Your task to perform on an android device: move an email to a new category in the gmail app Image 0: 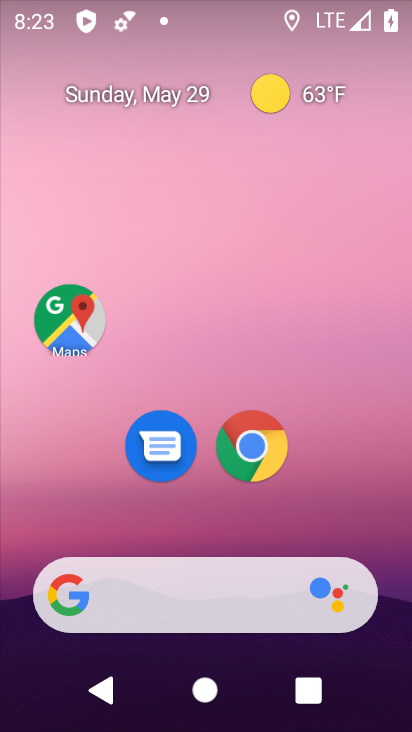
Step 0: drag from (228, 533) to (209, 181)
Your task to perform on an android device: move an email to a new category in the gmail app Image 1: 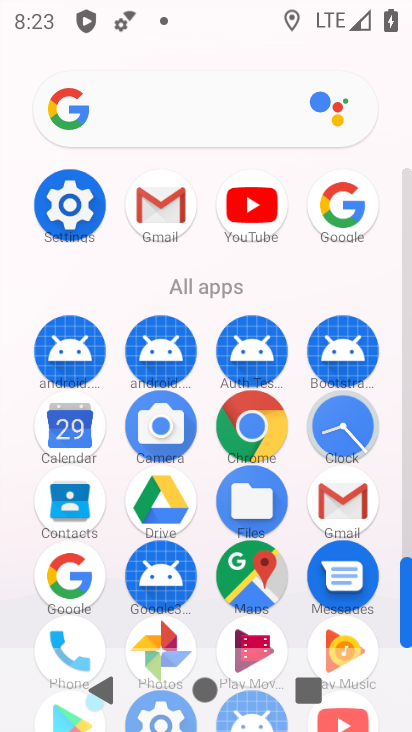
Step 1: click (176, 195)
Your task to perform on an android device: move an email to a new category in the gmail app Image 2: 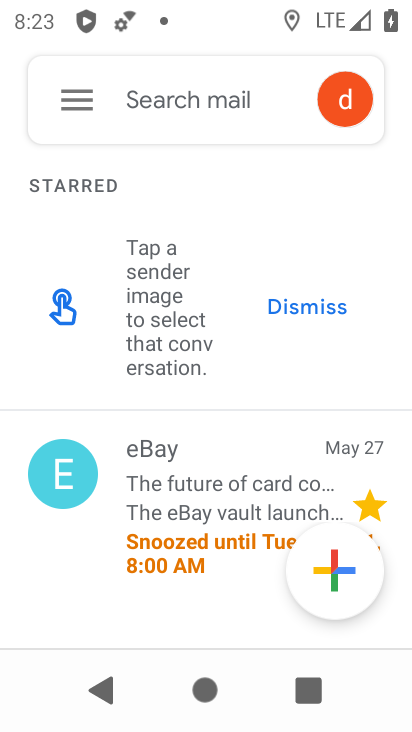
Step 2: click (70, 80)
Your task to perform on an android device: move an email to a new category in the gmail app Image 3: 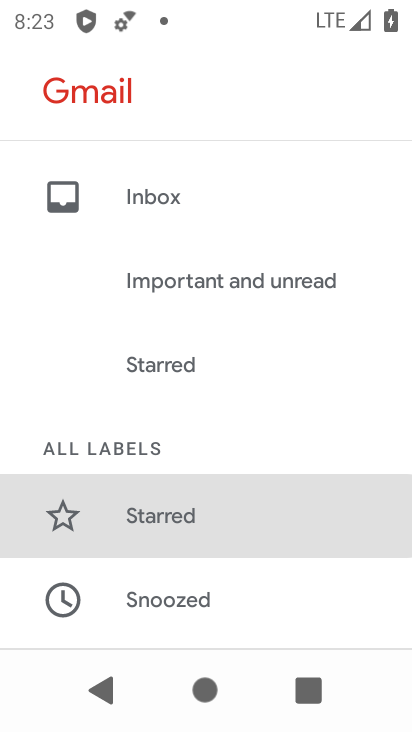
Step 3: drag from (236, 494) to (237, 287)
Your task to perform on an android device: move an email to a new category in the gmail app Image 4: 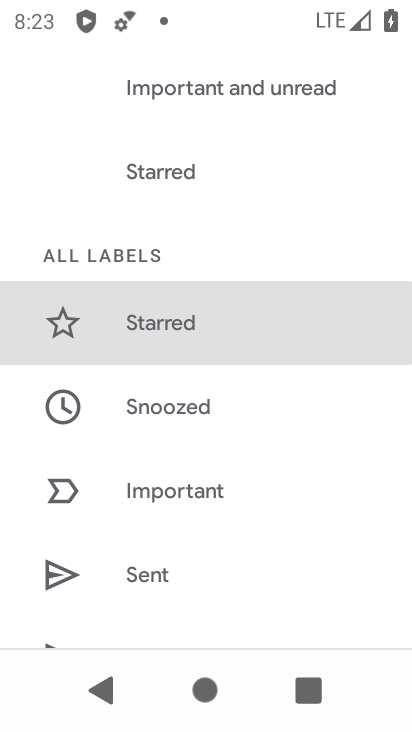
Step 4: drag from (237, 484) to (283, 285)
Your task to perform on an android device: move an email to a new category in the gmail app Image 5: 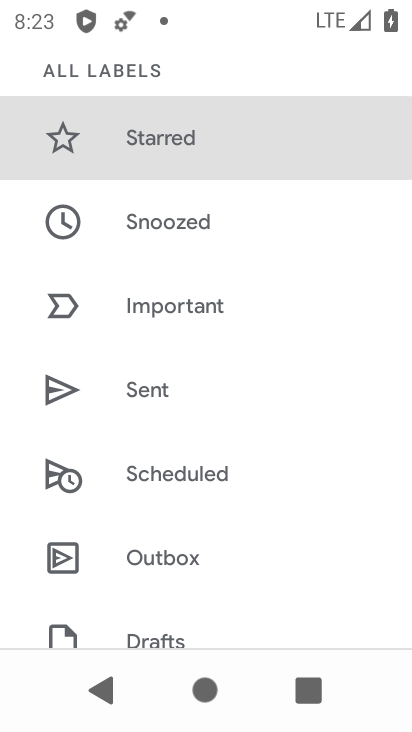
Step 5: drag from (239, 541) to (207, 256)
Your task to perform on an android device: move an email to a new category in the gmail app Image 6: 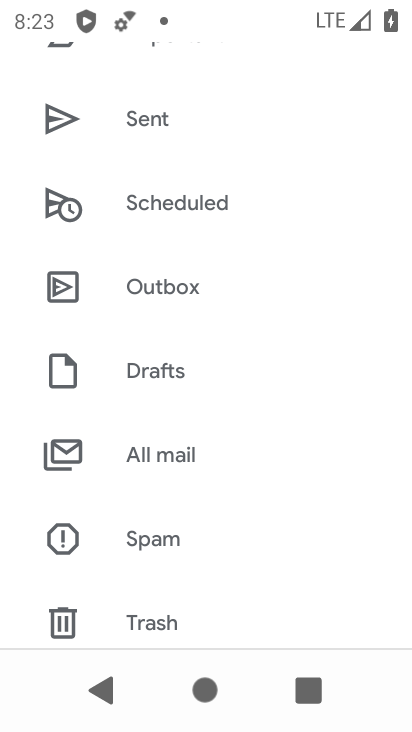
Step 6: drag from (208, 568) to (209, 374)
Your task to perform on an android device: move an email to a new category in the gmail app Image 7: 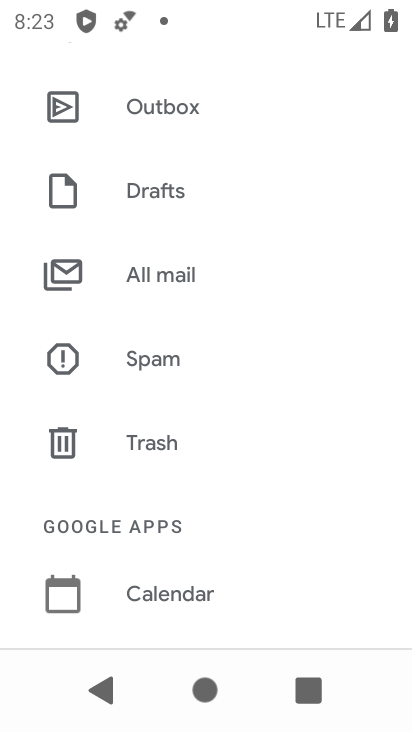
Step 7: drag from (181, 565) to (183, 376)
Your task to perform on an android device: move an email to a new category in the gmail app Image 8: 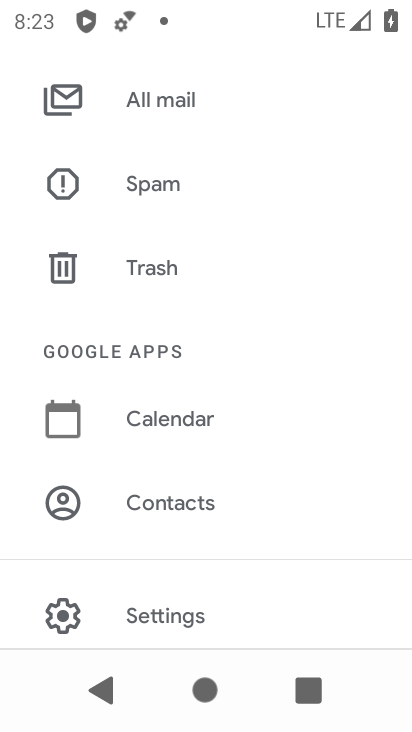
Step 8: click (187, 116)
Your task to perform on an android device: move an email to a new category in the gmail app Image 9: 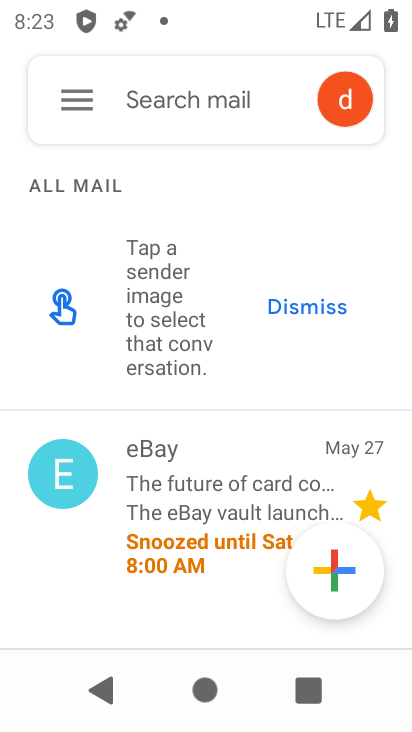
Step 9: click (224, 488)
Your task to perform on an android device: move an email to a new category in the gmail app Image 10: 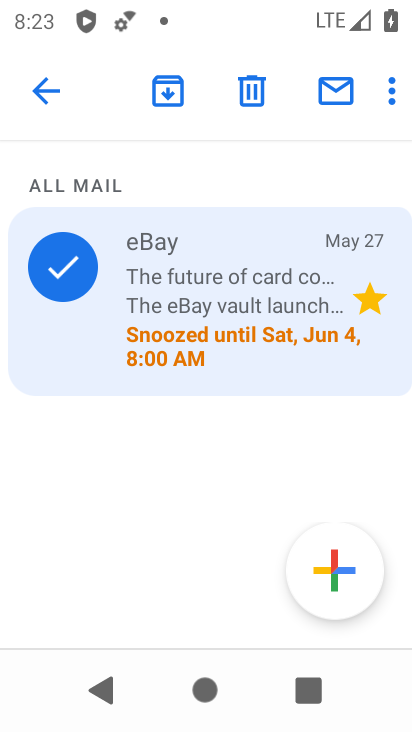
Step 10: click (384, 92)
Your task to perform on an android device: move an email to a new category in the gmail app Image 11: 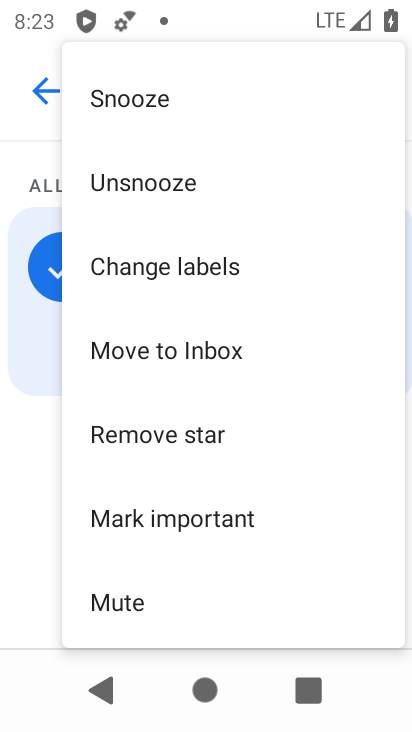
Step 11: click (214, 345)
Your task to perform on an android device: move an email to a new category in the gmail app Image 12: 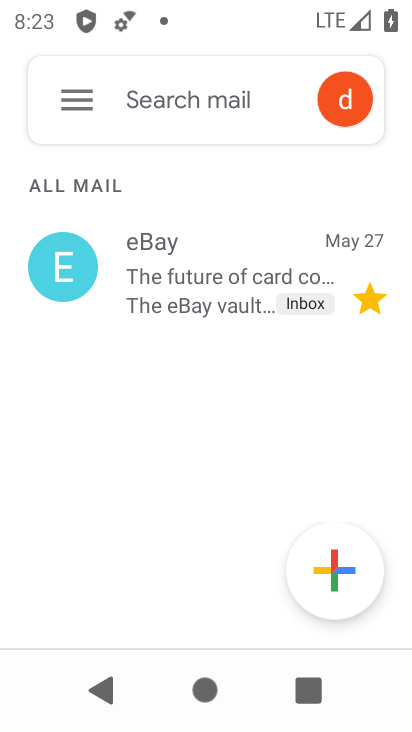
Step 12: task complete